Your task to perform on an android device: Open the Play Movies app and select the watchlist tab. Image 0: 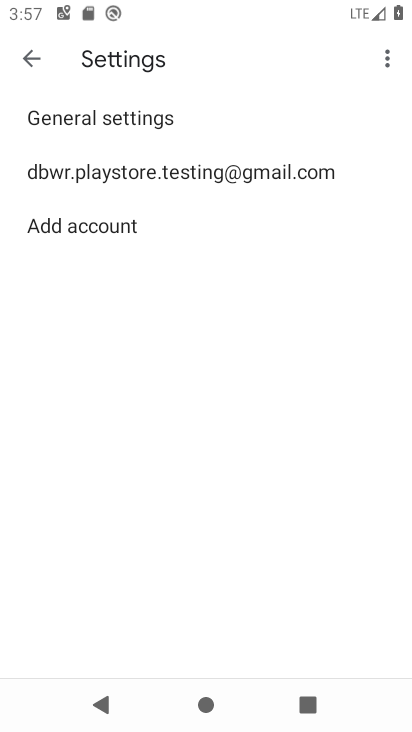
Step 0: press home button
Your task to perform on an android device: Open the Play Movies app and select the watchlist tab. Image 1: 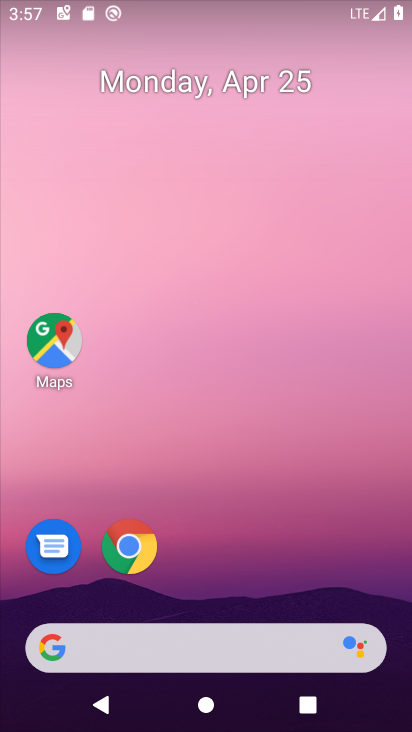
Step 1: drag from (216, 604) to (319, 10)
Your task to perform on an android device: Open the Play Movies app and select the watchlist tab. Image 2: 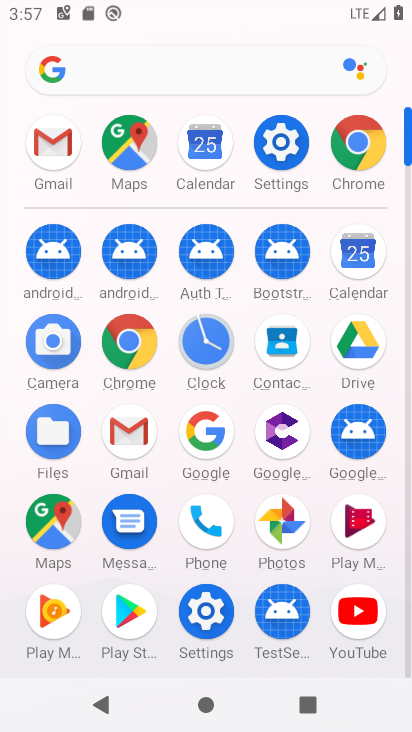
Step 2: click (351, 524)
Your task to perform on an android device: Open the Play Movies app and select the watchlist tab. Image 3: 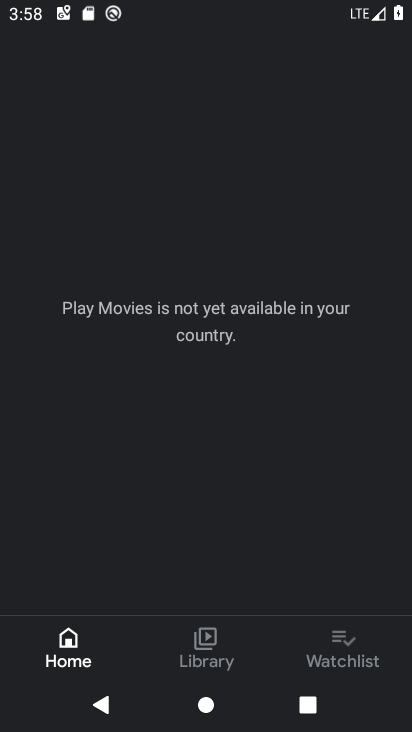
Step 3: click (327, 637)
Your task to perform on an android device: Open the Play Movies app and select the watchlist tab. Image 4: 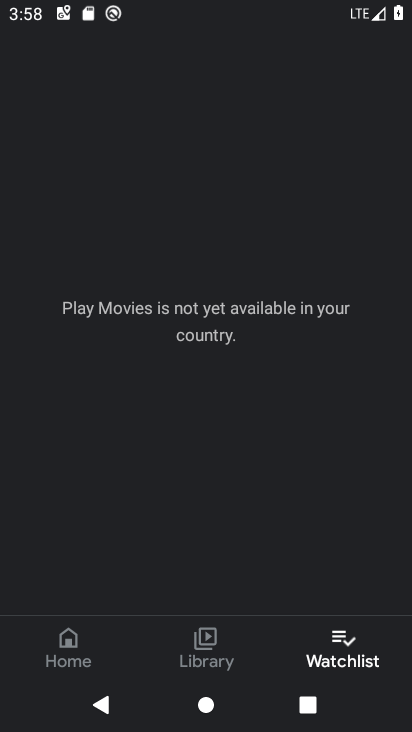
Step 4: task complete